Your task to perform on an android device: read, delete, or share a saved page in the chrome app Image 0: 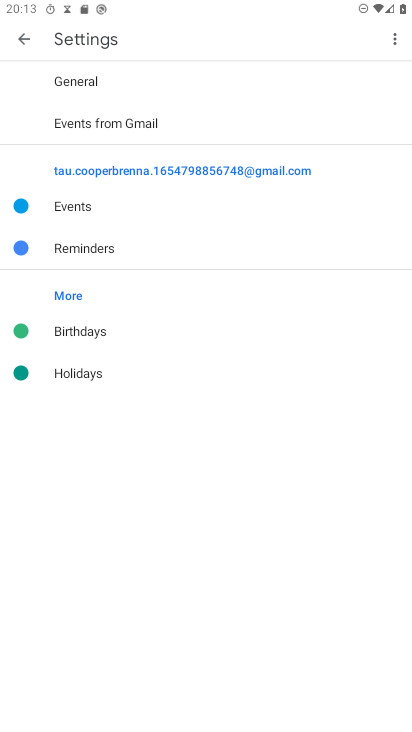
Step 0: press home button
Your task to perform on an android device: read, delete, or share a saved page in the chrome app Image 1: 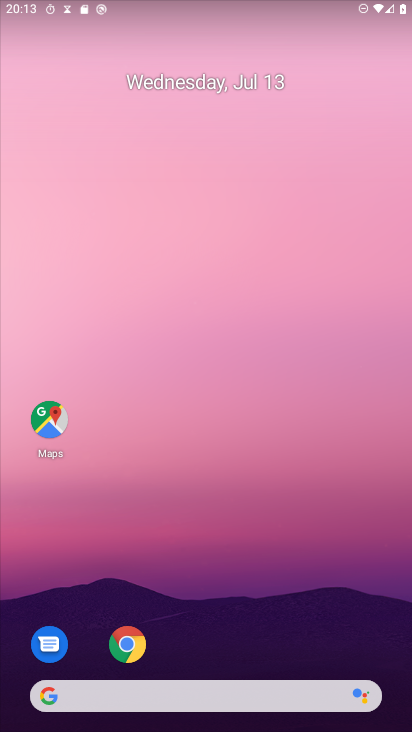
Step 1: click (124, 652)
Your task to perform on an android device: read, delete, or share a saved page in the chrome app Image 2: 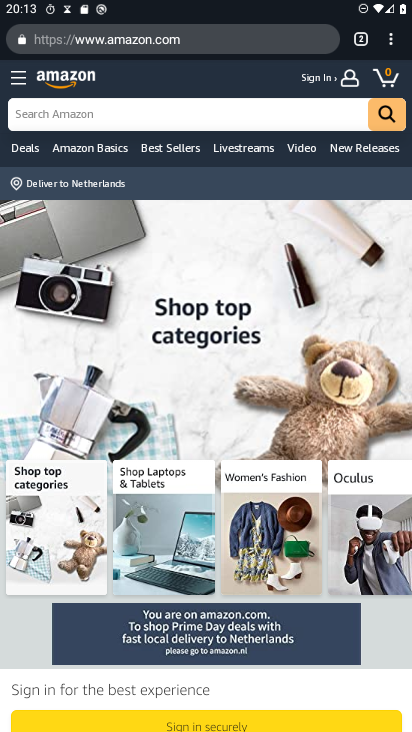
Step 2: click (398, 43)
Your task to perform on an android device: read, delete, or share a saved page in the chrome app Image 3: 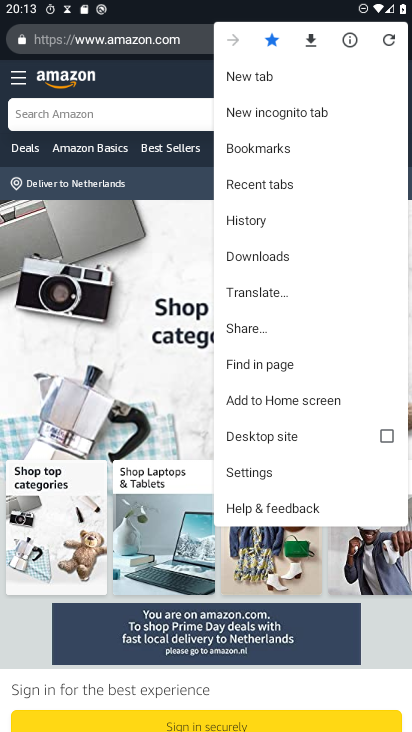
Step 3: click (260, 264)
Your task to perform on an android device: read, delete, or share a saved page in the chrome app Image 4: 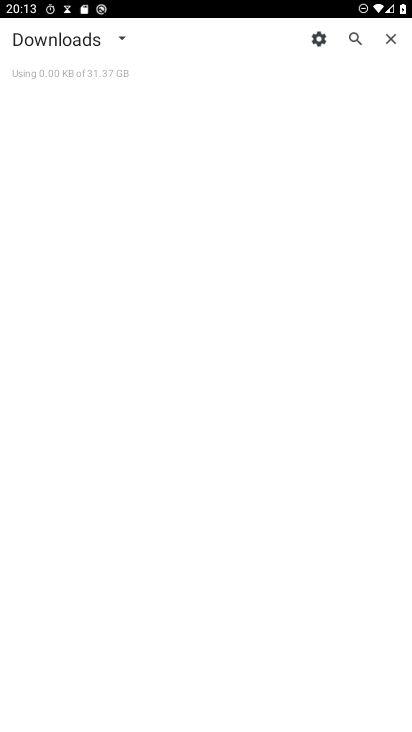
Step 4: click (102, 38)
Your task to perform on an android device: read, delete, or share a saved page in the chrome app Image 5: 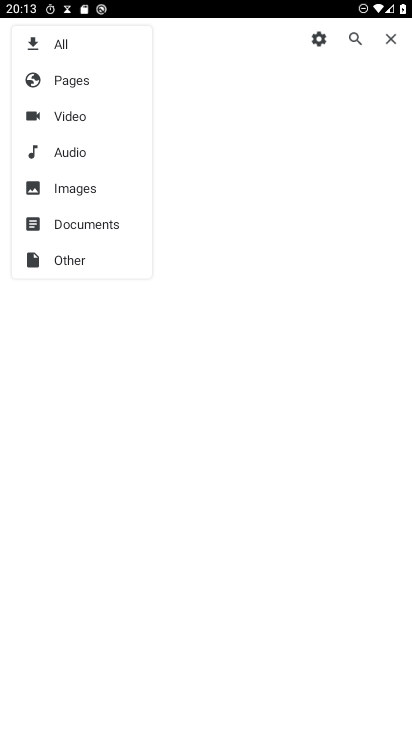
Step 5: click (78, 85)
Your task to perform on an android device: read, delete, or share a saved page in the chrome app Image 6: 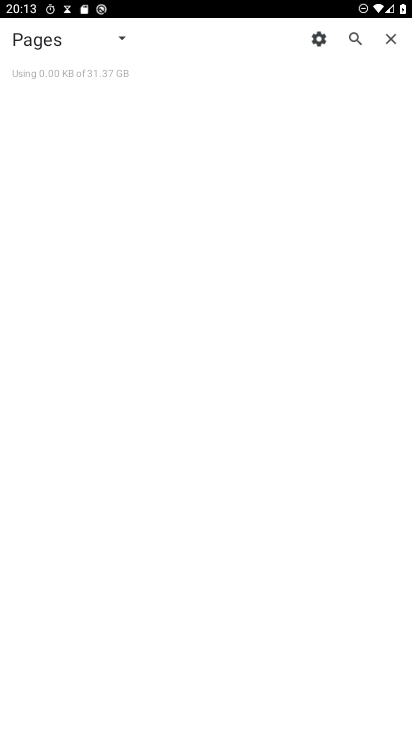
Step 6: task complete